Your task to perform on an android device: turn off location Image 0: 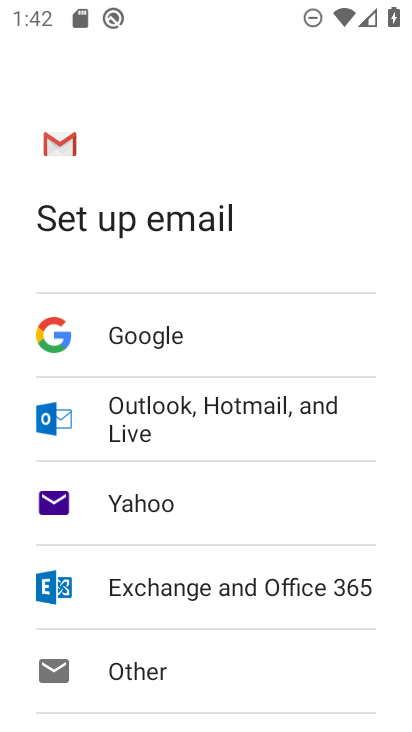
Step 0: press home button
Your task to perform on an android device: turn off location Image 1: 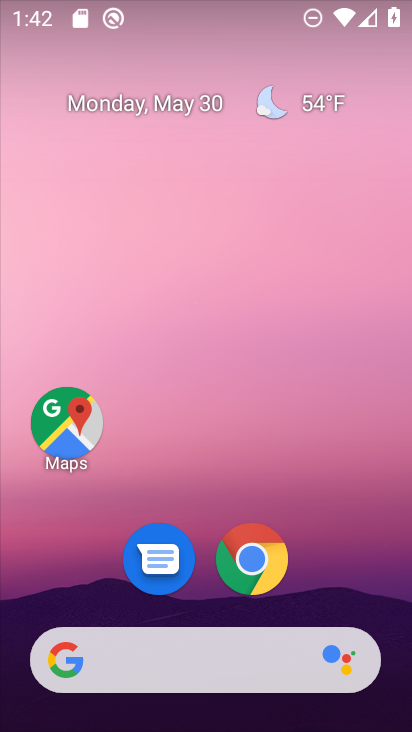
Step 1: drag from (331, 564) to (329, 7)
Your task to perform on an android device: turn off location Image 2: 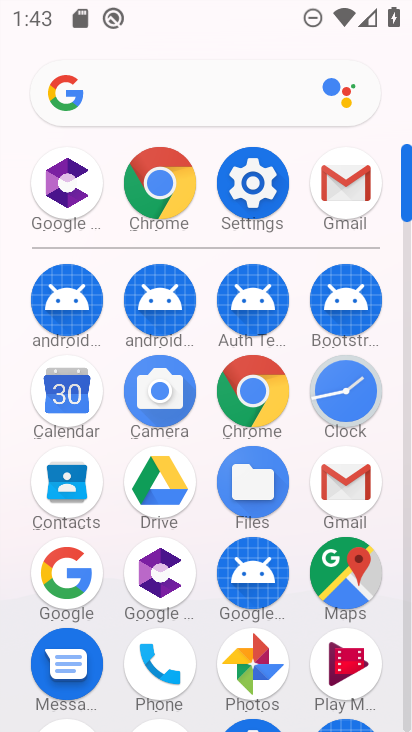
Step 2: click (259, 189)
Your task to perform on an android device: turn off location Image 3: 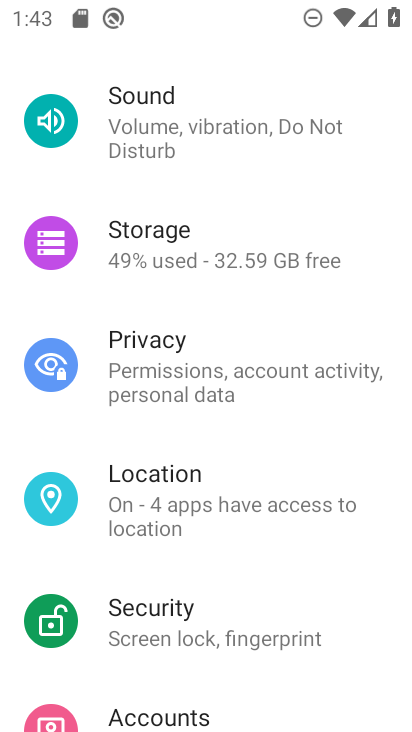
Step 3: click (187, 489)
Your task to perform on an android device: turn off location Image 4: 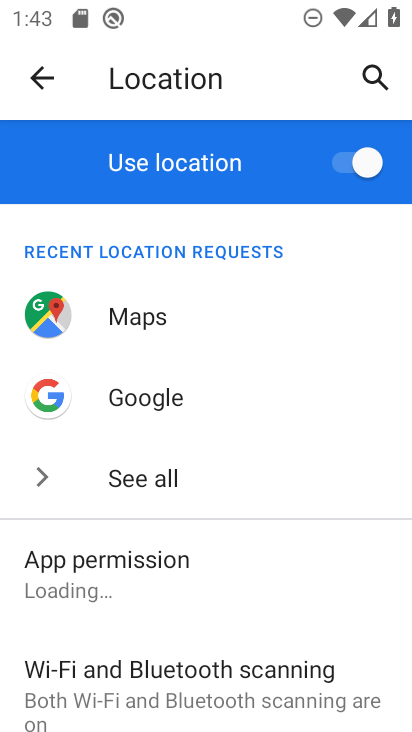
Step 4: click (374, 160)
Your task to perform on an android device: turn off location Image 5: 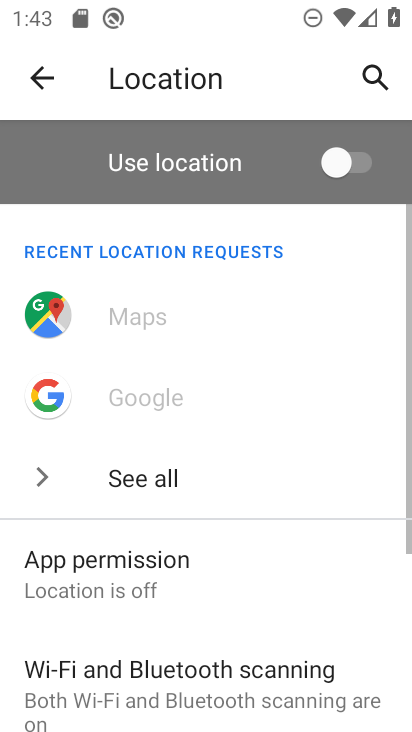
Step 5: task complete